Your task to perform on an android device: Go to Reddit.com Image 0: 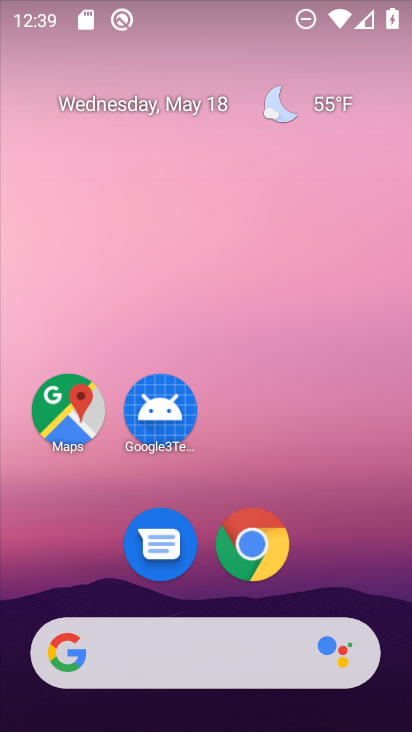
Step 0: drag from (211, 589) to (271, 158)
Your task to perform on an android device: Go to Reddit.com Image 1: 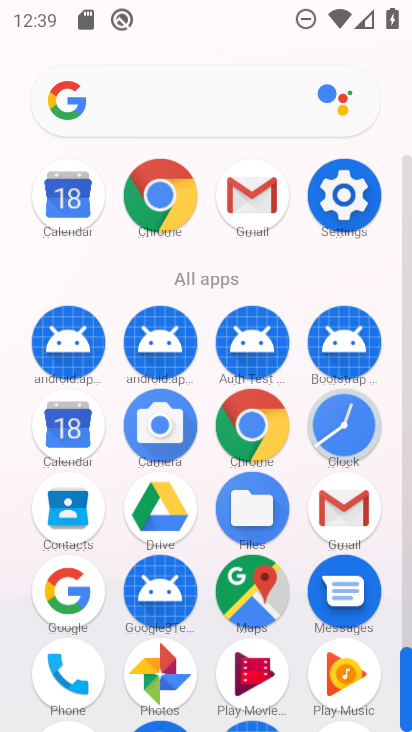
Step 1: click (147, 218)
Your task to perform on an android device: Go to Reddit.com Image 2: 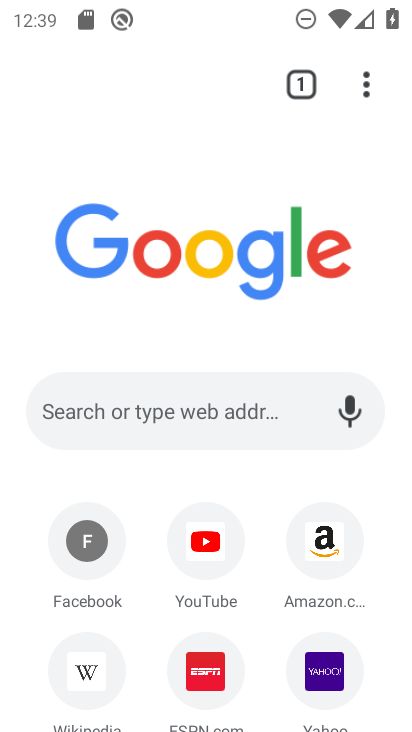
Step 2: click (202, 407)
Your task to perform on an android device: Go to Reddit.com Image 3: 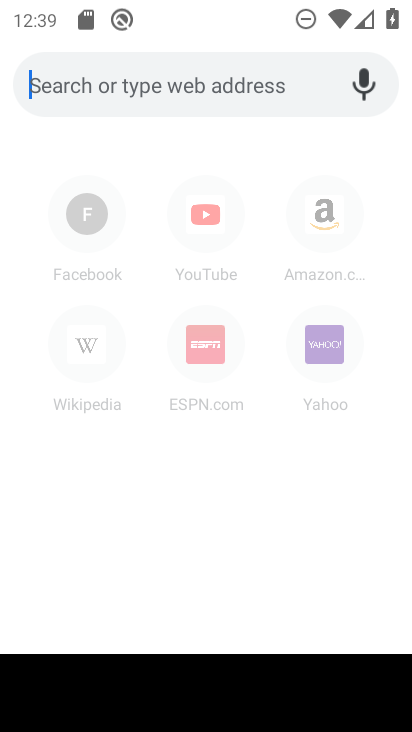
Step 3: type "reddit.com"
Your task to perform on an android device: Go to Reddit.com Image 4: 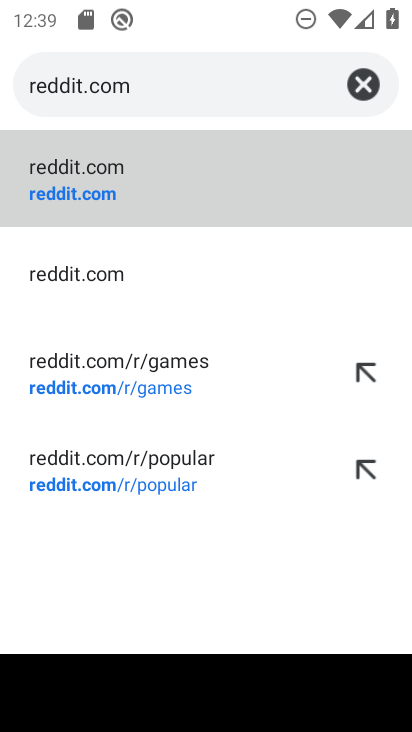
Step 4: click (114, 196)
Your task to perform on an android device: Go to Reddit.com Image 5: 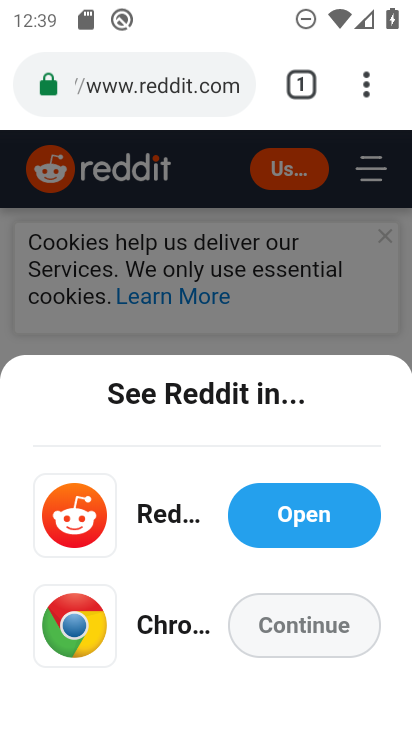
Step 5: task complete